Your task to perform on an android device: Open notification settings Image 0: 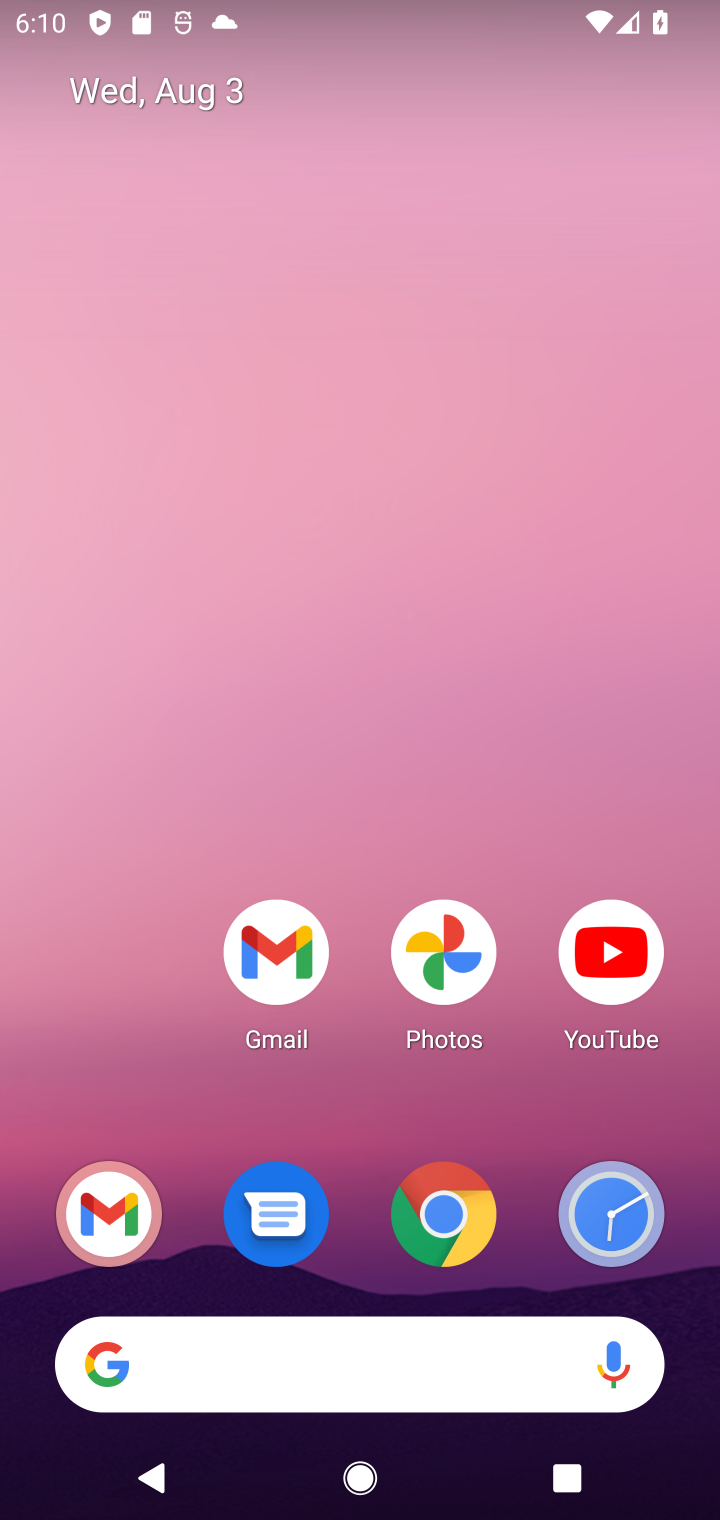
Step 0: drag from (89, 1040) to (168, 186)
Your task to perform on an android device: Open notification settings Image 1: 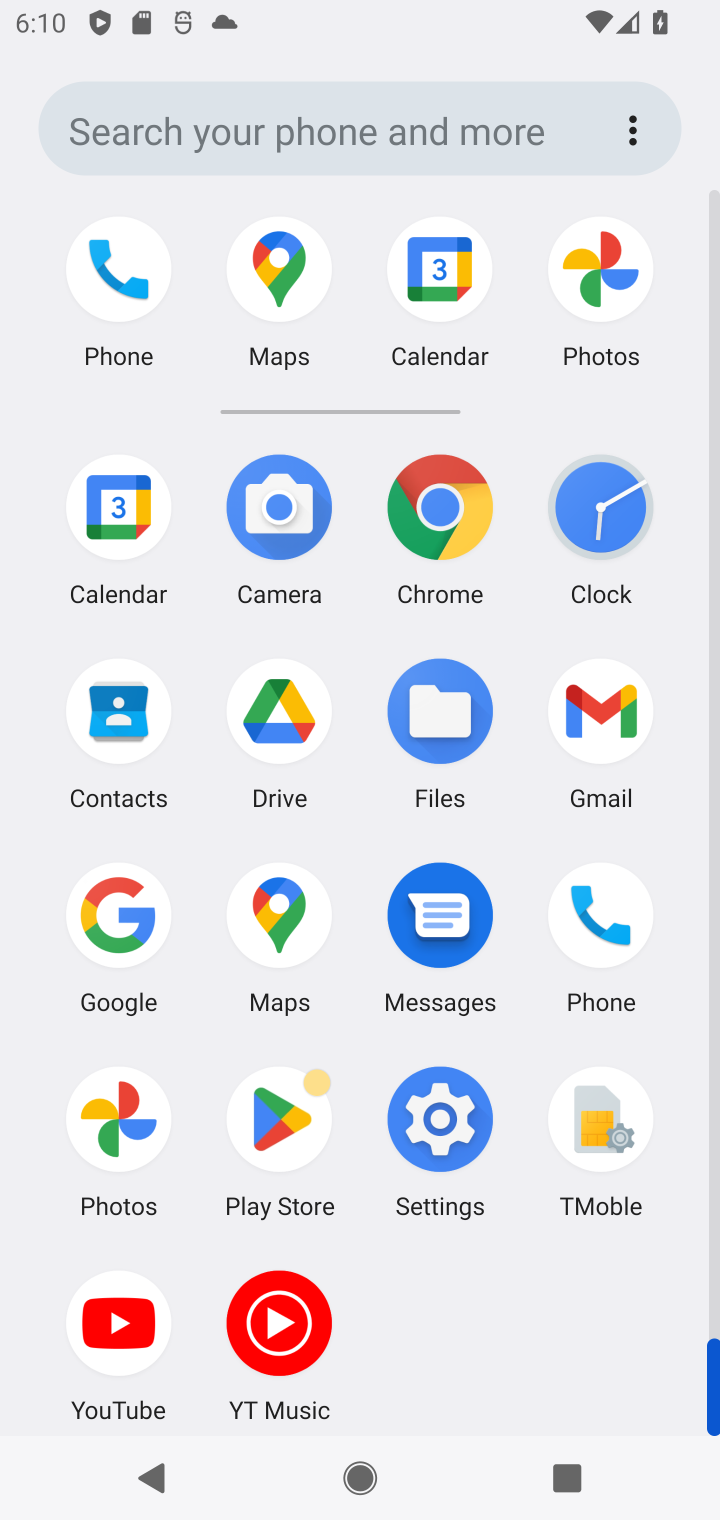
Step 1: click (425, 1122)
Your task to perform on an android device: Open notification settings Image 2: 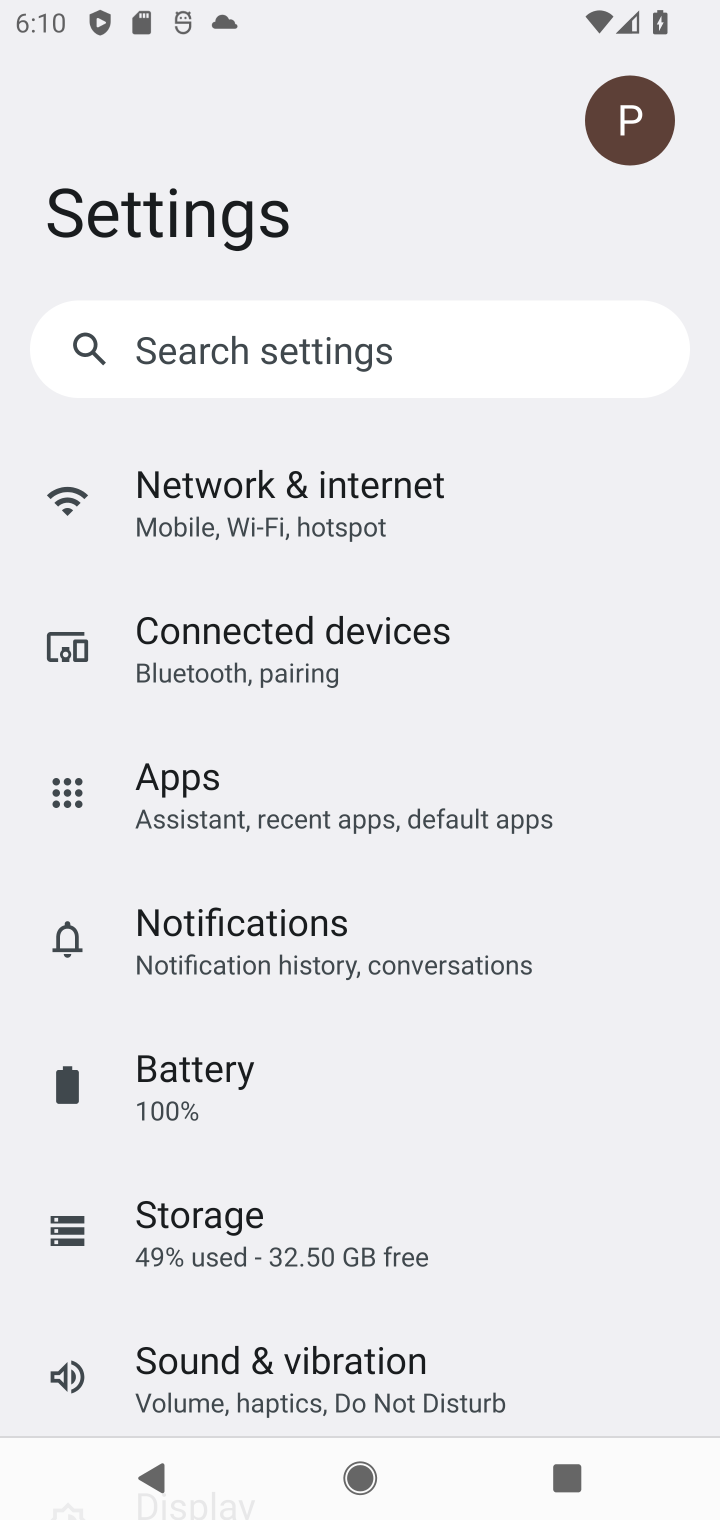
Step 2: click (266, 958)
Your task to perform on an android device: Open notification settings Image 3: 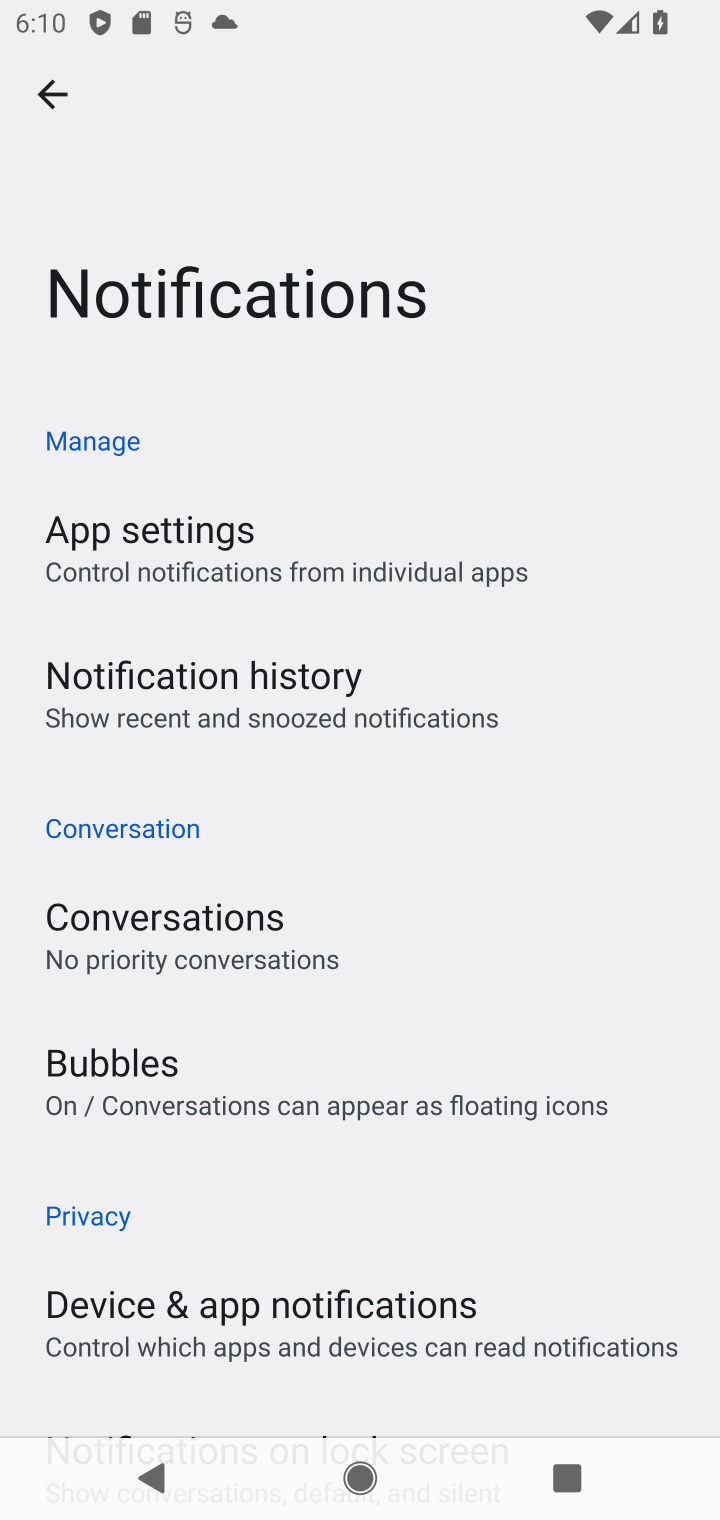
Step 3: drag from (242, 1216) to (254, 423)
Your task to perform on an android device: Open notification settings Image 4: 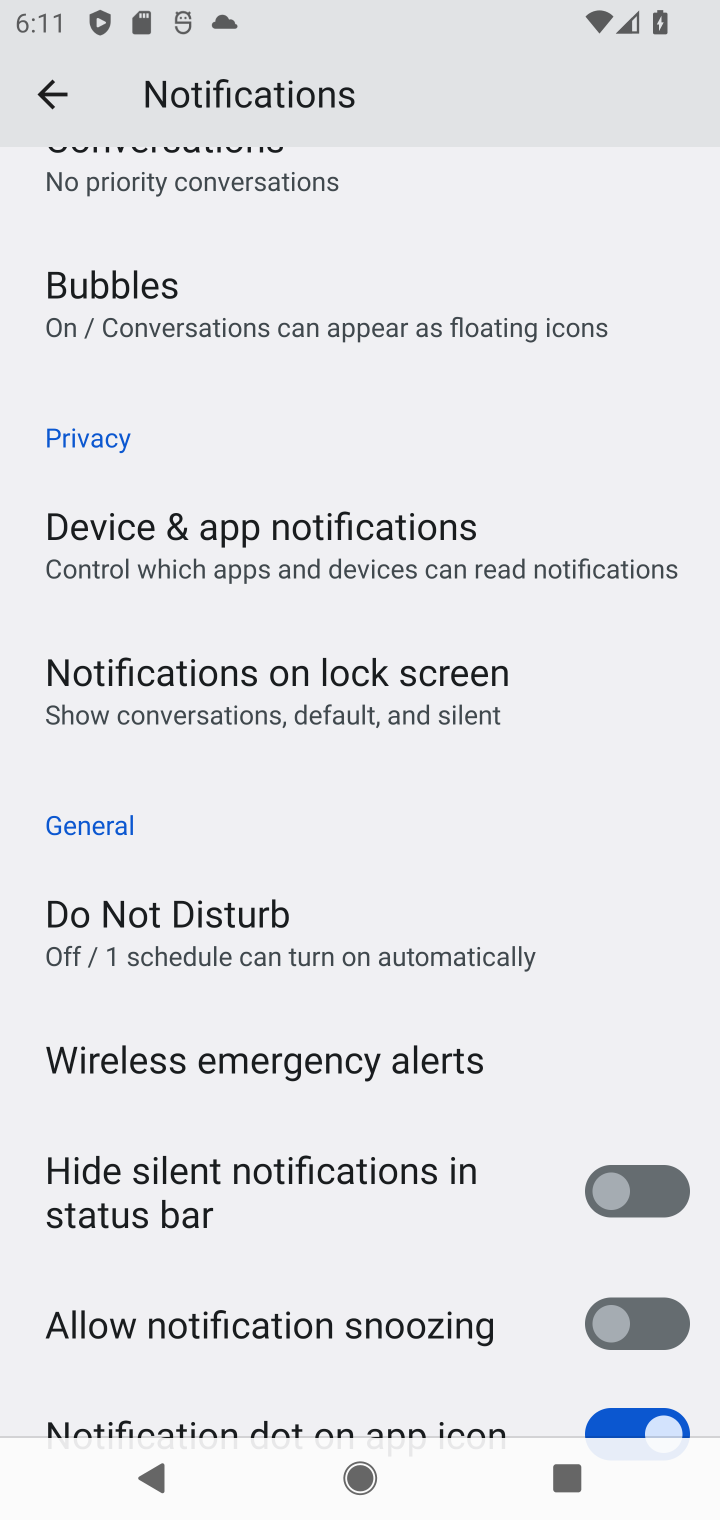
Step 4: drag from (271, 512) to (235, 1382)
Your task to perform on an android device: Open notification settings Image 5: 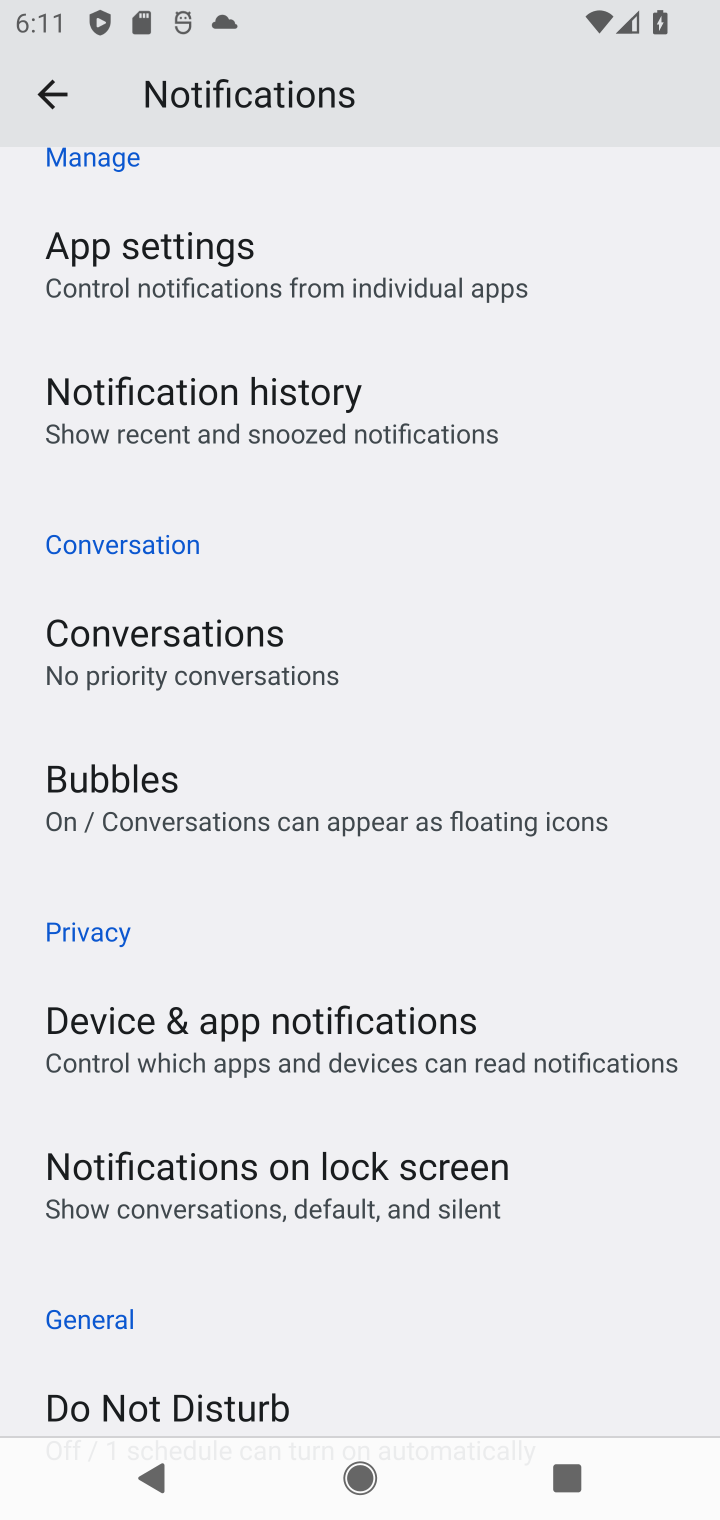
Step 5: drag from (316, 428) to (289, 1220)
Your task to perform on an android device: Open notification settings Image 6: 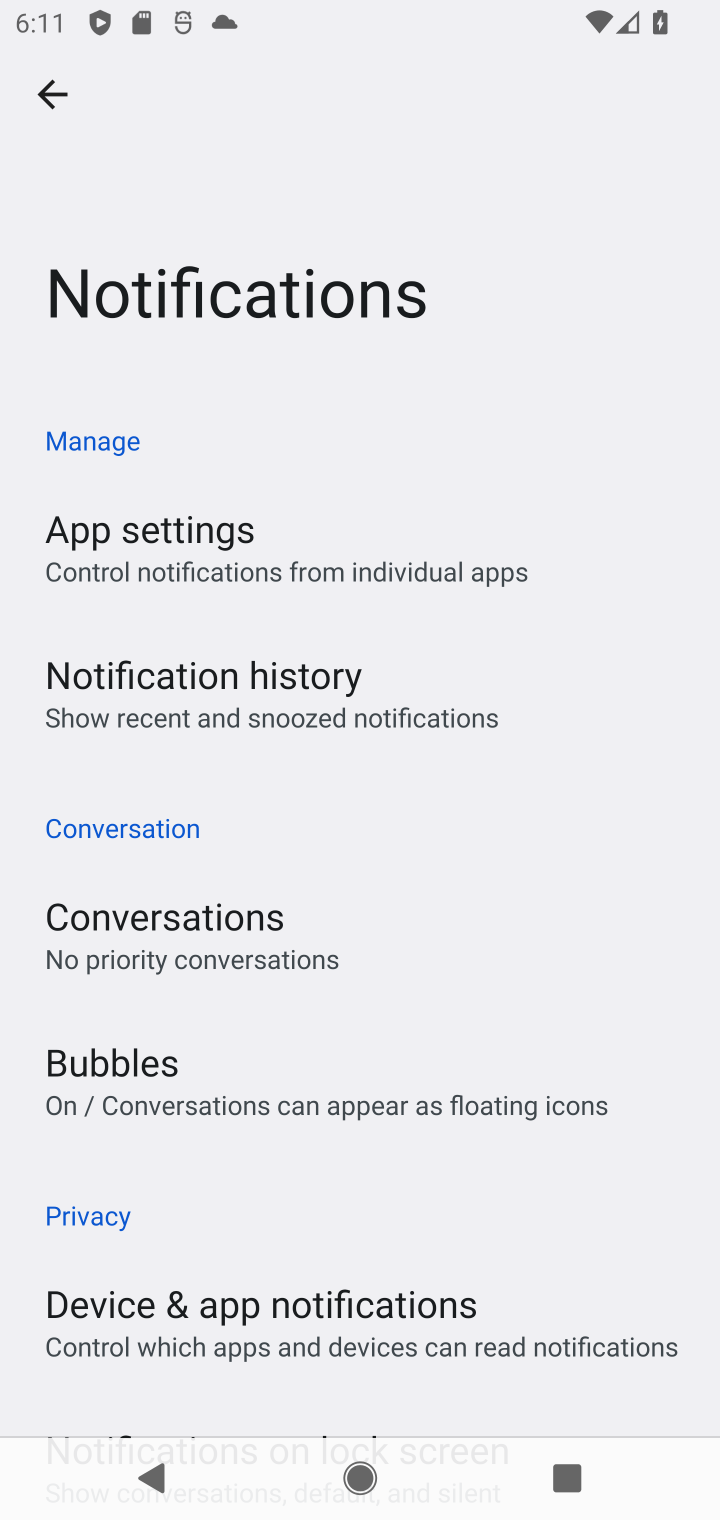
Step 6: drag from (270, 1286) to (405, 315)
Your task to perform on an android device: Open notification settings Image 7: 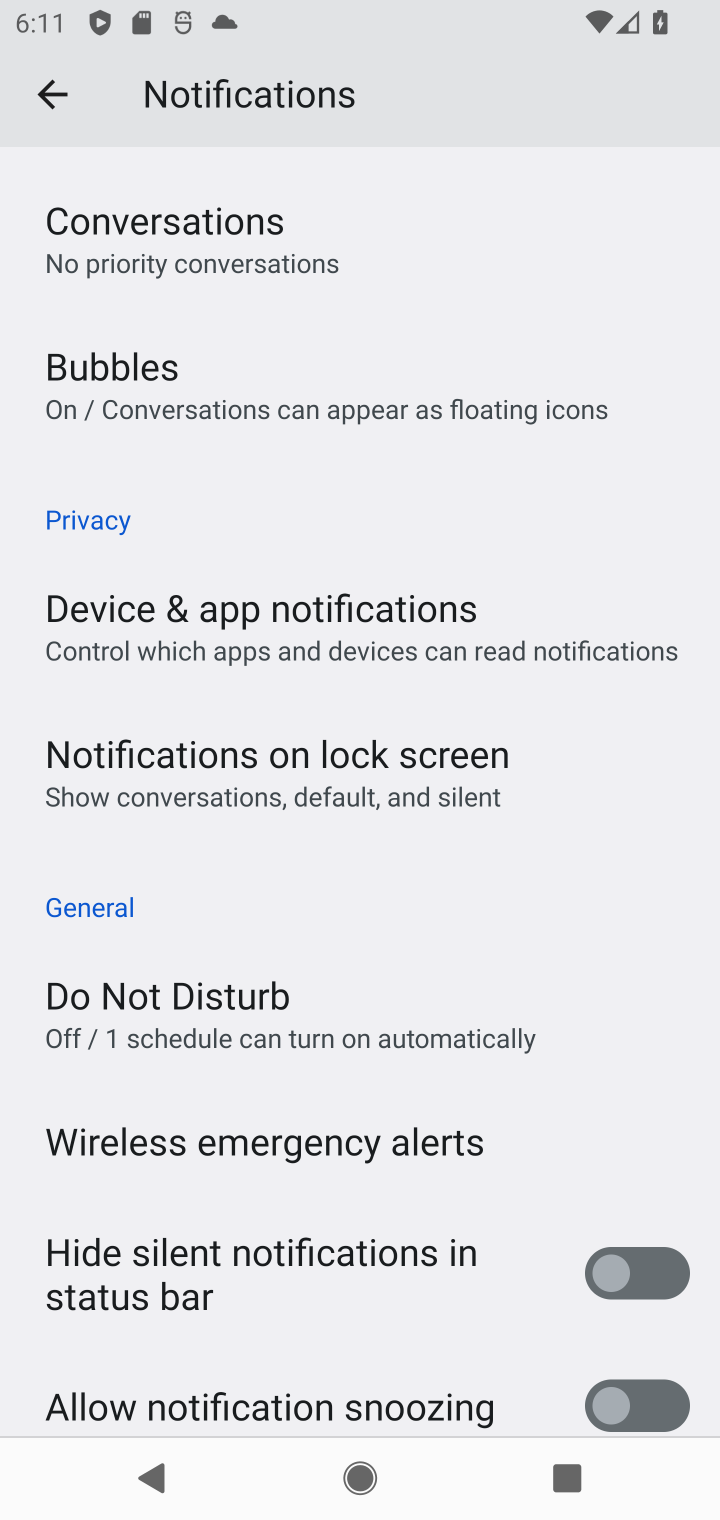
Step 7: drag from (171, 1190) to (265, 557)
Your task to perform on an android device: Open notification settings Image 8: 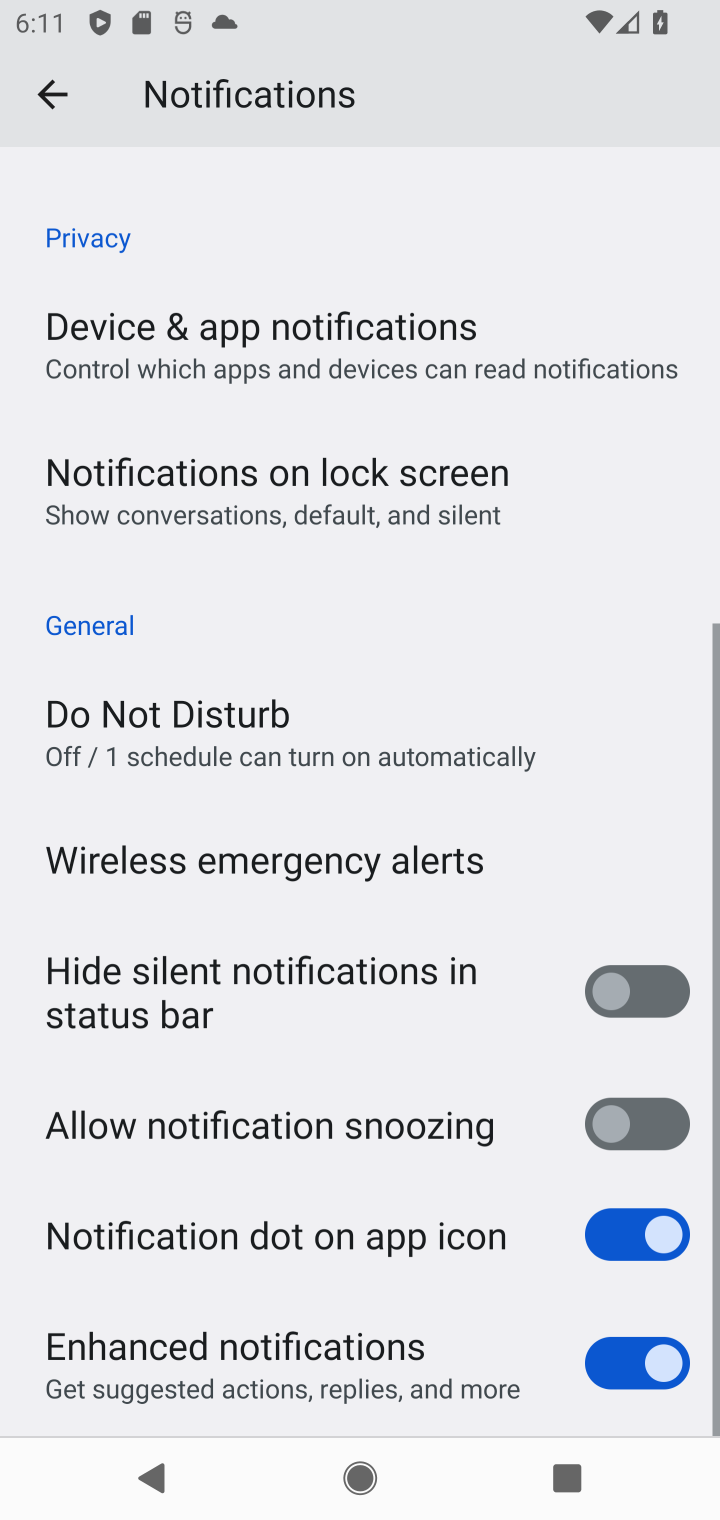
Step 8: drag from (263, 559) to (183, 1410)
Your task to perform on an android device: Open notification settings Image 9: 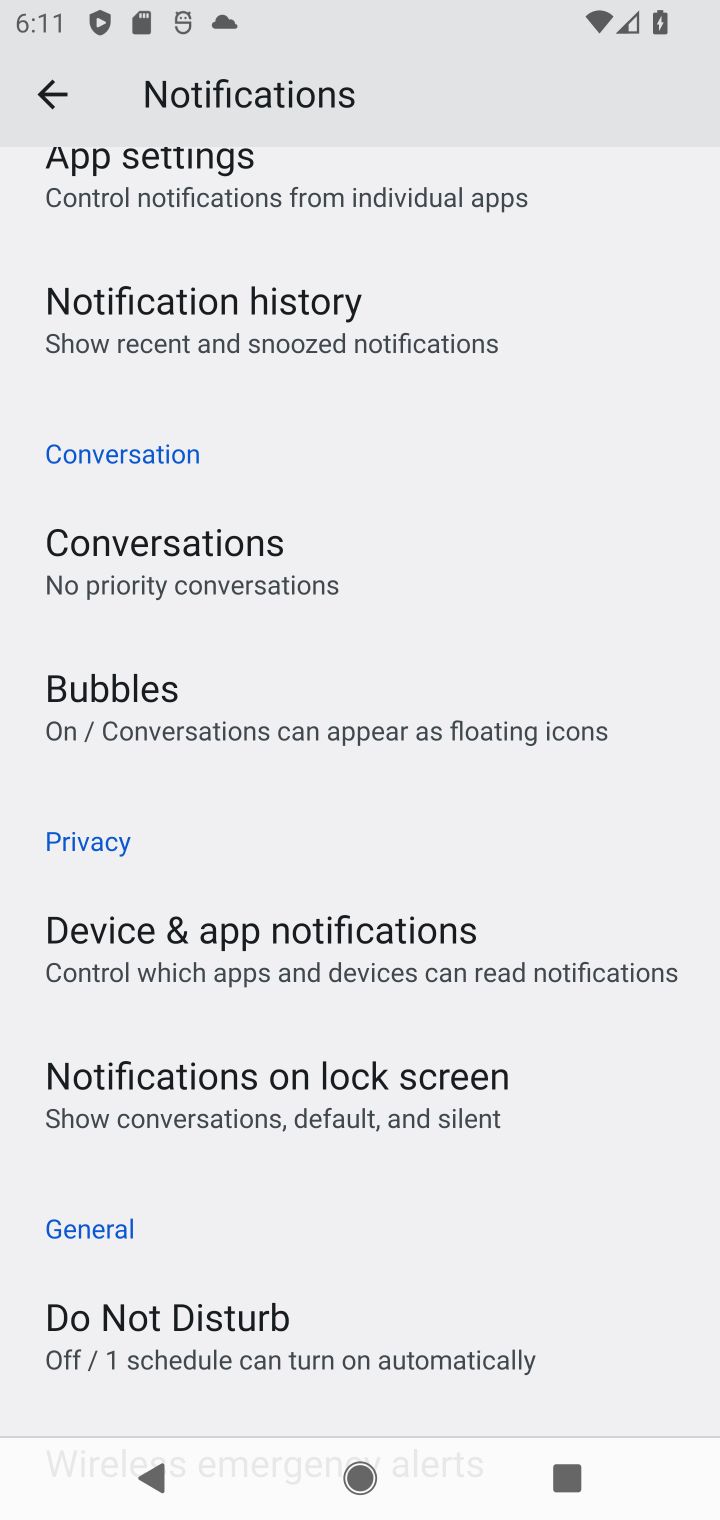
Step 9: drag from (321, 456) to (262, 1383)
Your task to perform on an android device: Open notification settings Image 10: 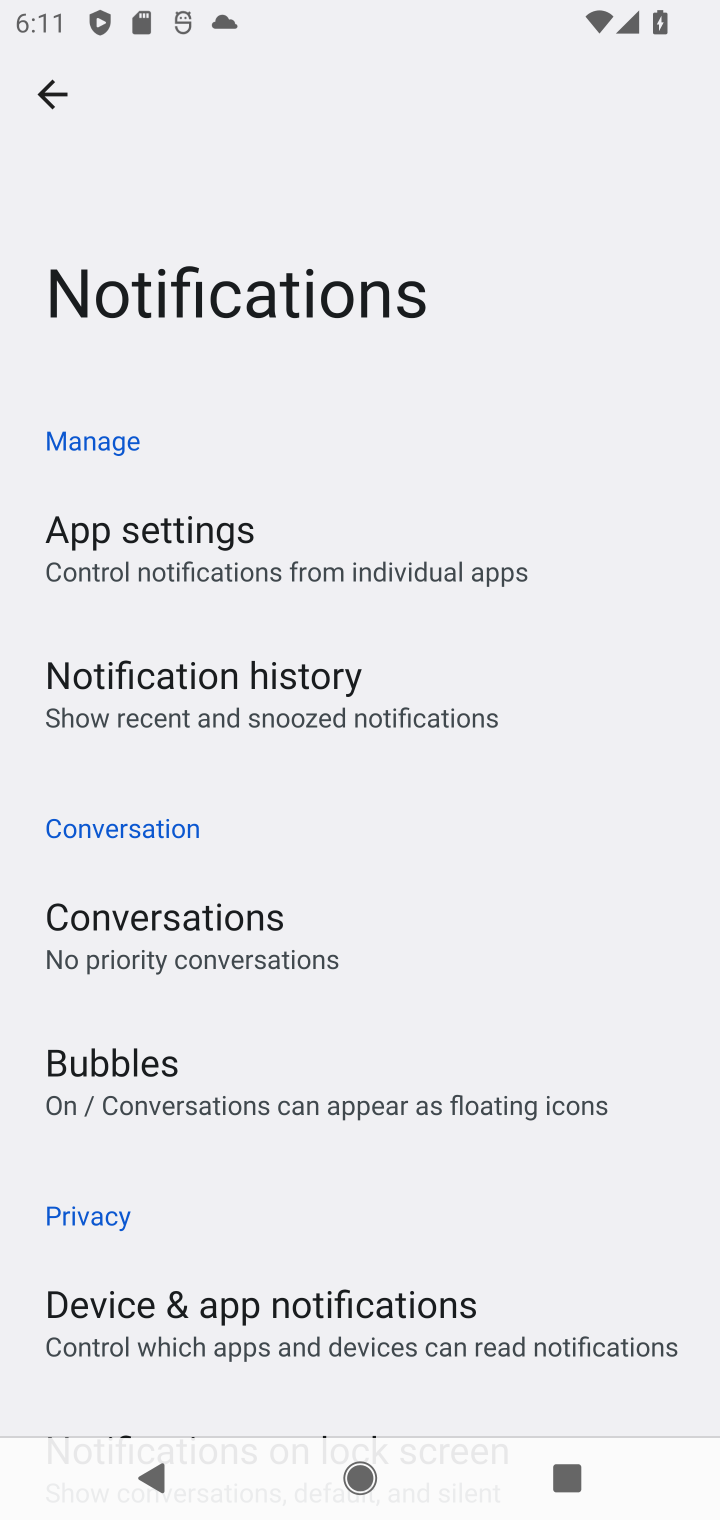
Step 10: click (137, 722)
Your task to perform on an android device: Open notification settings Image 11: 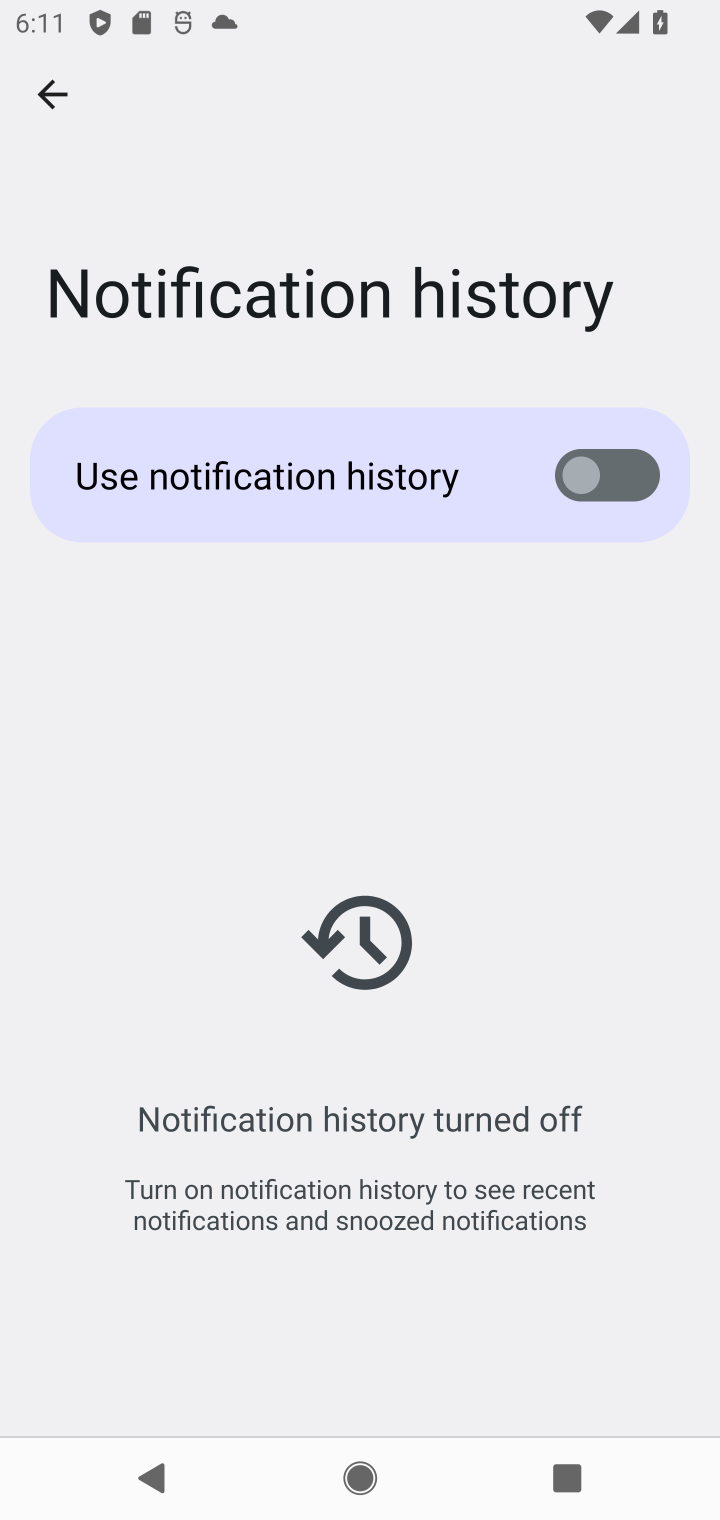
Step 11: task complete